Your task to perform on an android device: Open Google Image 0: 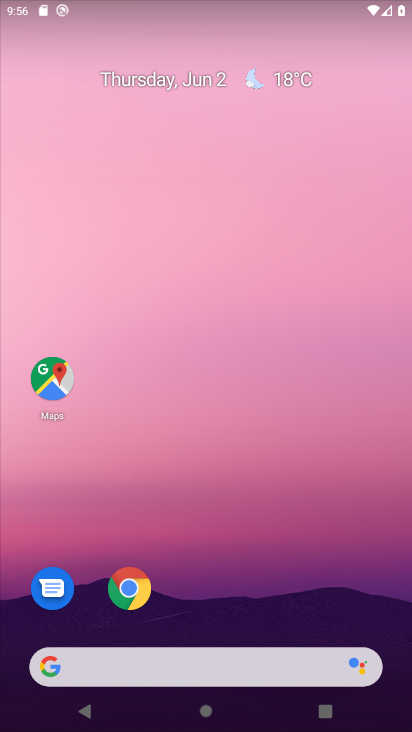
Step 0: drag from (267, 636) to (221, 65)
Your task to perform on an android device: Open Google Image 1: 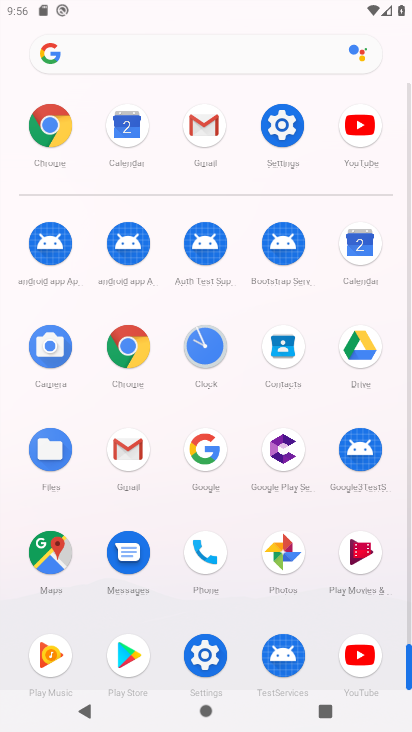
Step 1: click (190, 442)
Your task to perform on an android device: Open Google Image 2: 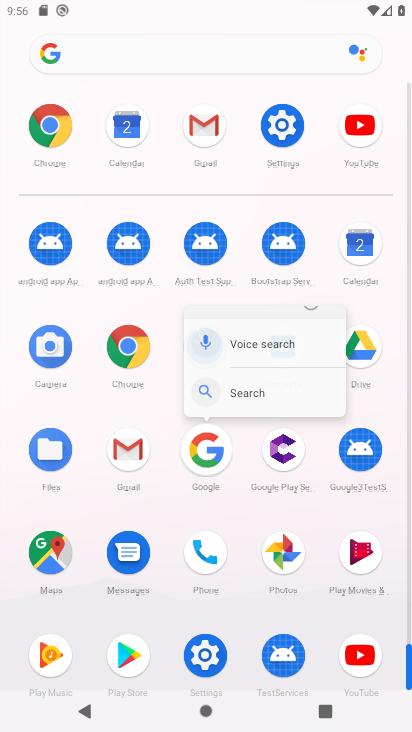
Step 2: click (204, 452)
Your task to perform on an android device: Open Google Image 3: 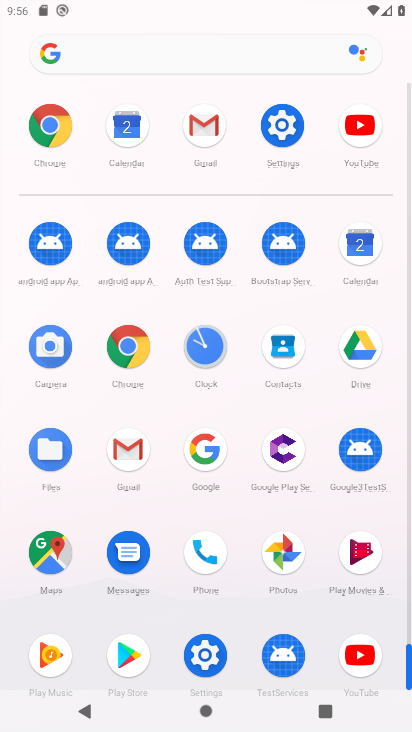
Step 3: click (204, 452)
Your task to perform on an android device: Open Google Image 4: 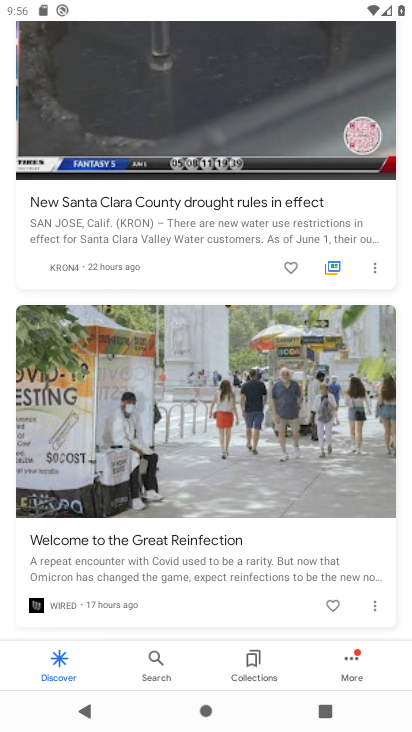
Step 4: task complete